Your task to perform on an android device: Open Yahoo.com Image 0: 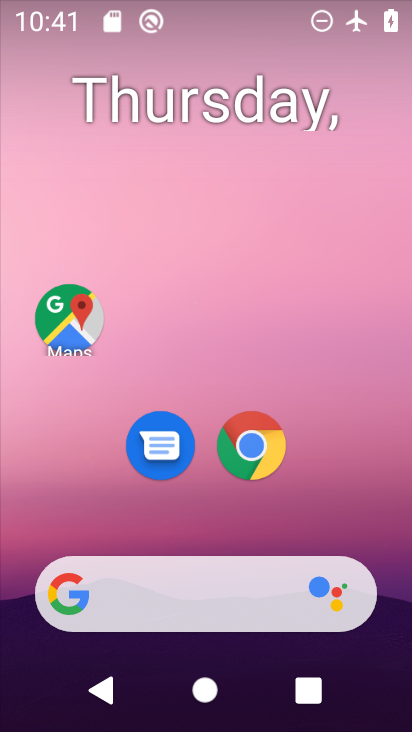
Step 0: click (246, 448)
Your task to perform on an android device: Open Yahoo.com Image 1: 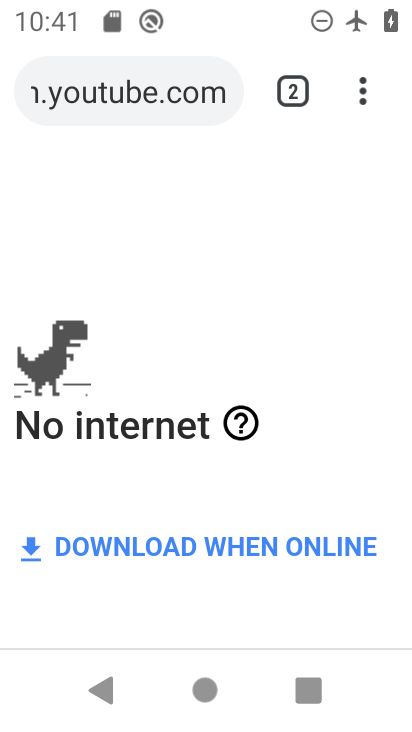
Step 1: task complete